Your task to perform on an android device: Go to Wikipedia Image 0: 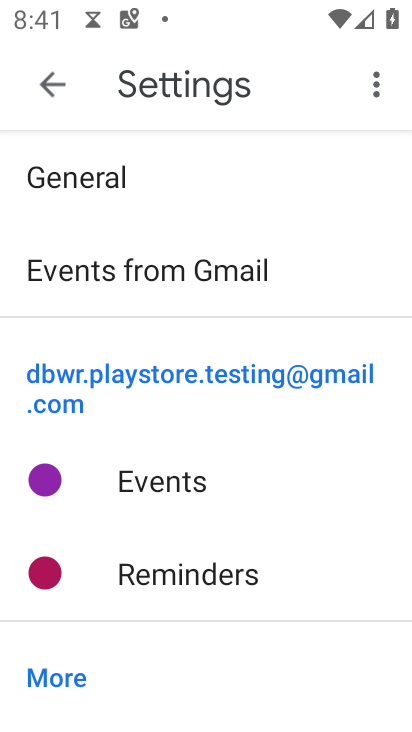
Step 0: press home button
Your task to perform on an android device: Go to Wikipedia Image 1: 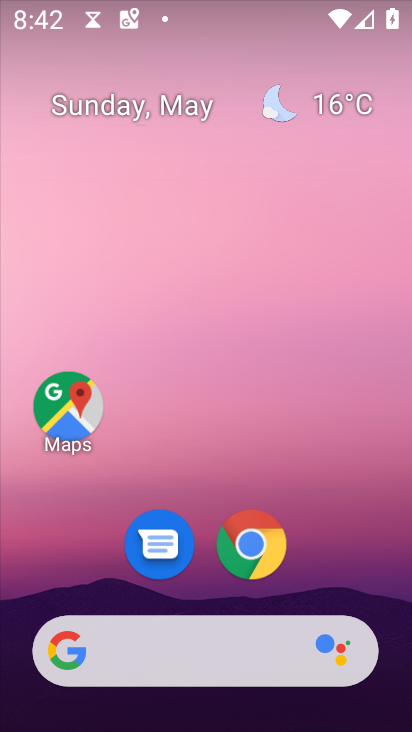
Step 1: click (236, 561)
Your task to perform on an android device: Go to Wikipedia Image 2: 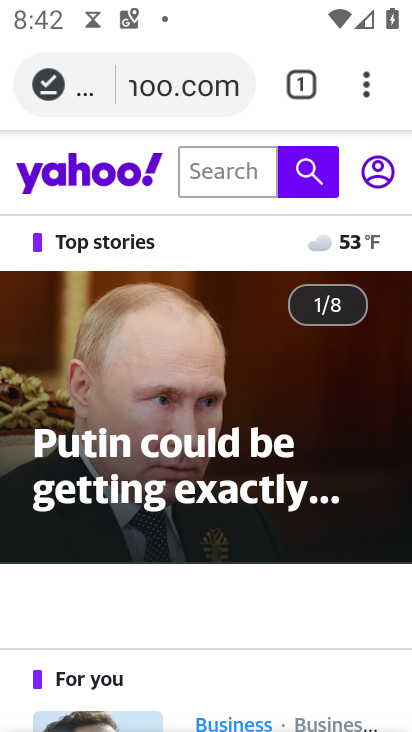
Step 2: press back button
Your task to perform on an android device: Go to Wikipedia Image 3: 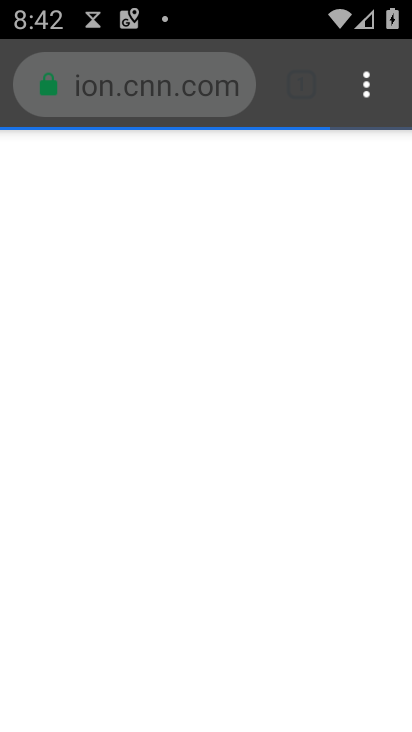
Step 3: press back button
Your task to perform on an android device: Go to Wikipedia Image 4: 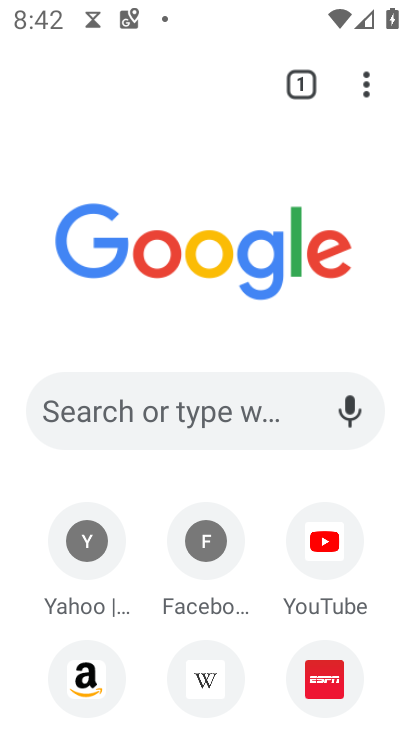
Step 4: click (203, 684)
Your task to perform on an android device: Go to Wikipedia Image 5: 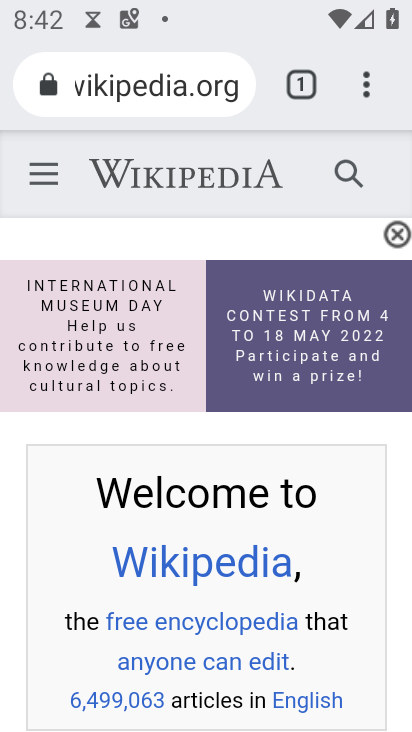
Step 5: task complete